Your task to perform on an android device: Open calendar and show me the second week of next month Image 0: 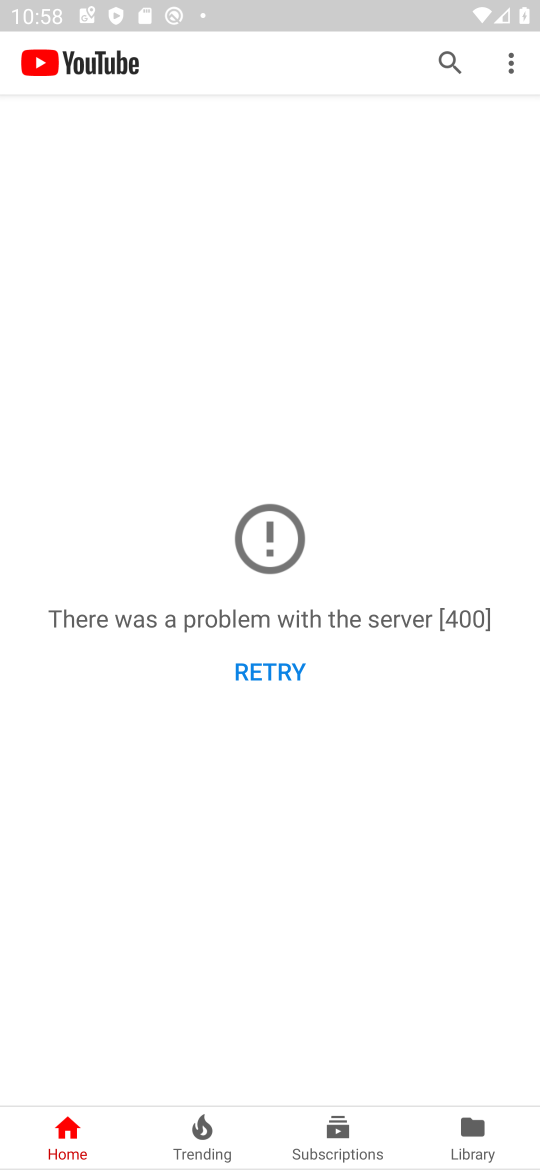
Step 0: press home button
Your task to perform on an android device: Open calendar and show me the second week of next month Image 1: 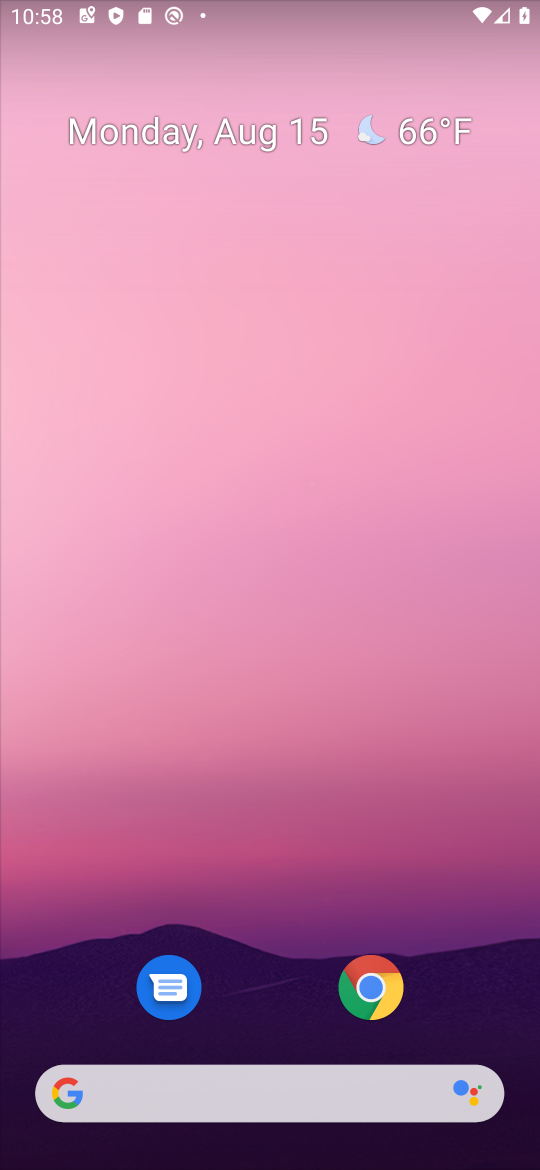
Step 1: drag from (235, 1076) to (171, 104)
Your task to perform on an android device: Open calendar and show me the second week of next month Image 2: 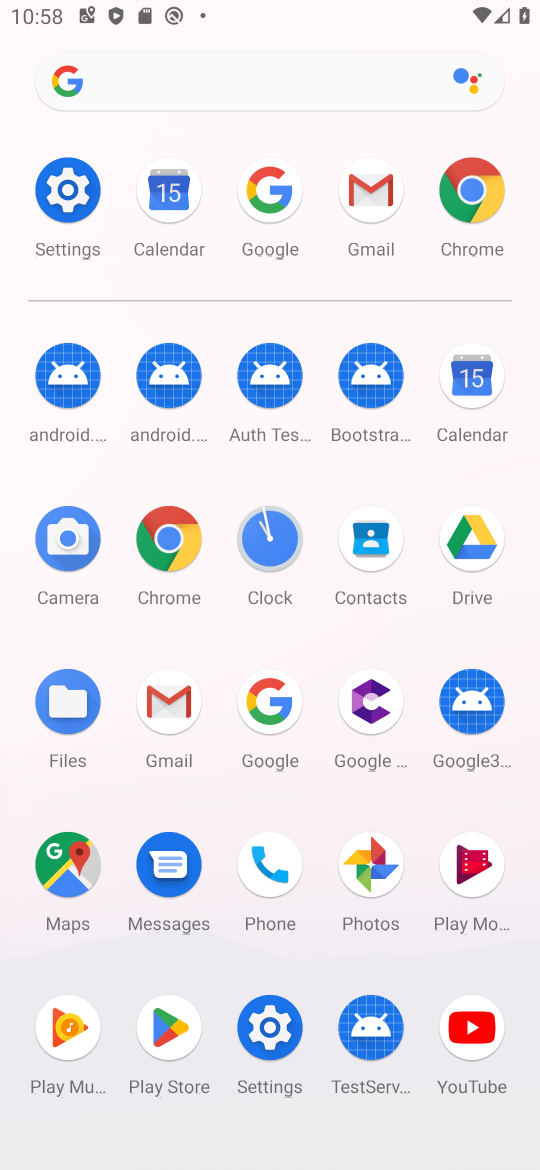
Step 2: click (483, 389)
Your task to perform on an android device: Open calendar and show me the second week of next month Image 3: 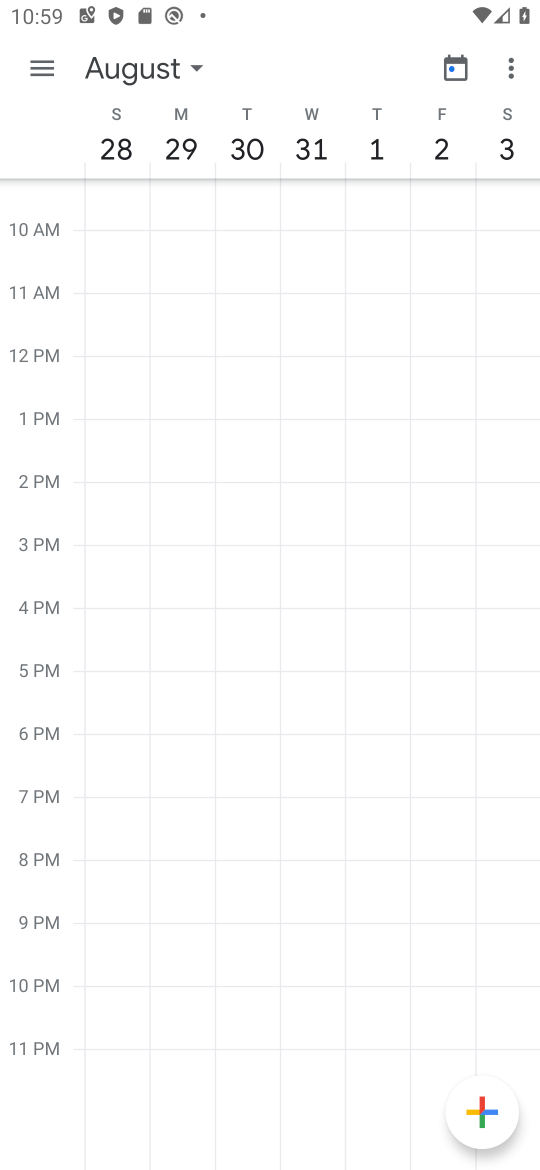
Step 3: task complete